Your task to perform on an android device: Open wifi settings Image 0: 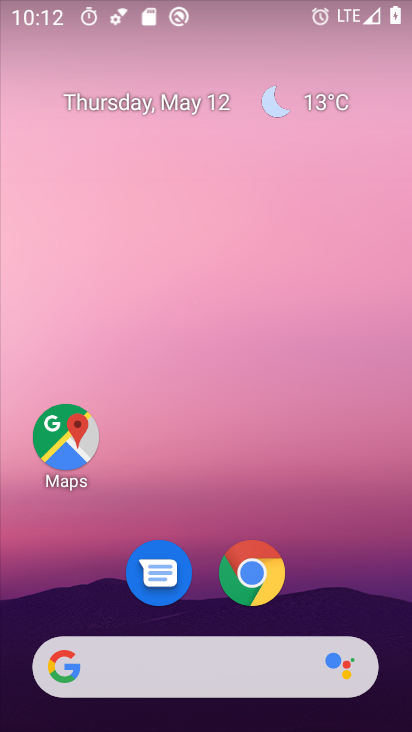
Step 0: drag from (380, 427) to (380, 265)
Your task to perform on an android device: Open wifi settings Image 1: 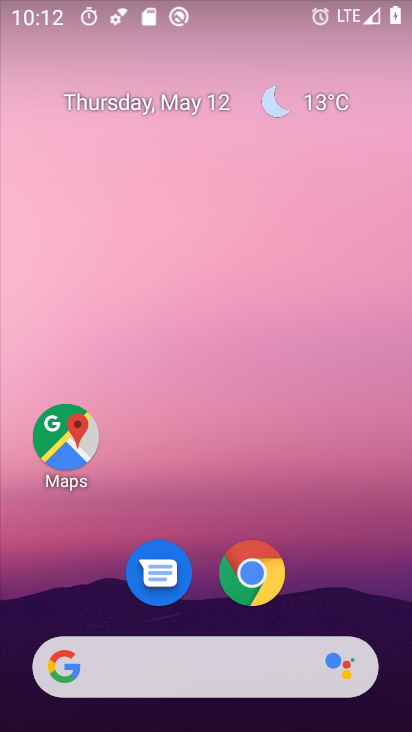
Step 1: drag from (396, 363) to (380, 166)
Your task to perform on an android device: Open wifi settings Image 2: 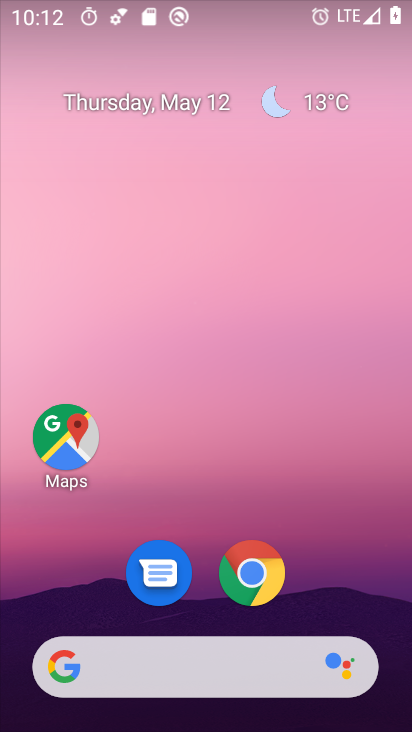
Step 2: drag from (411, 469) to (394, 273)
Your task to perform on an android device: Open wifi settings Image 3: 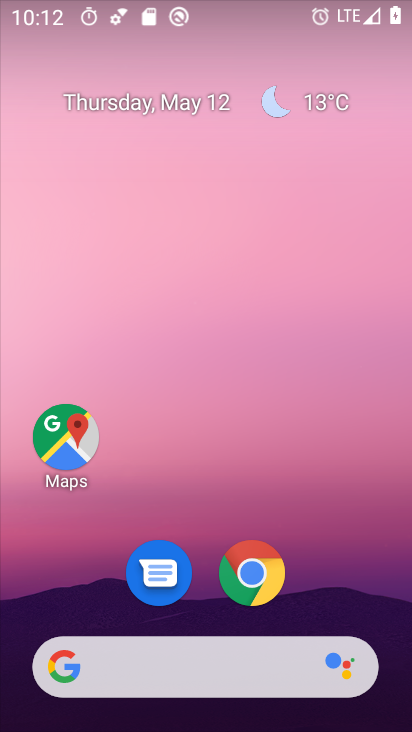
Step 3: drag from (365, 247) to (358, 143)
Your task to perform on an android device: Open wifi settings Image 4: 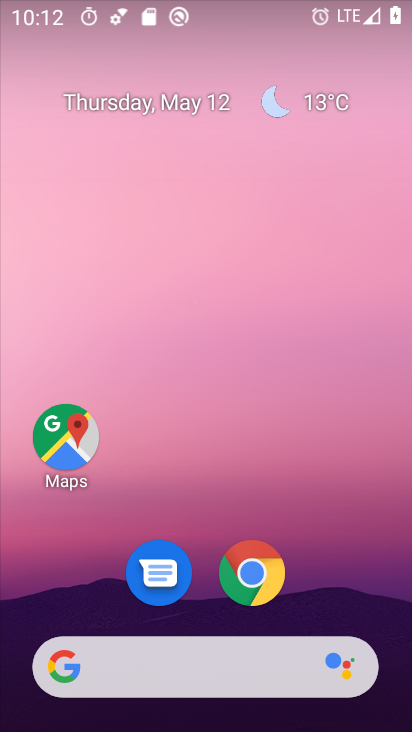
Step 4: drag from (383, 350) to (361, 213)
Your task to perform on an android device: Open wifi settings Image 5: 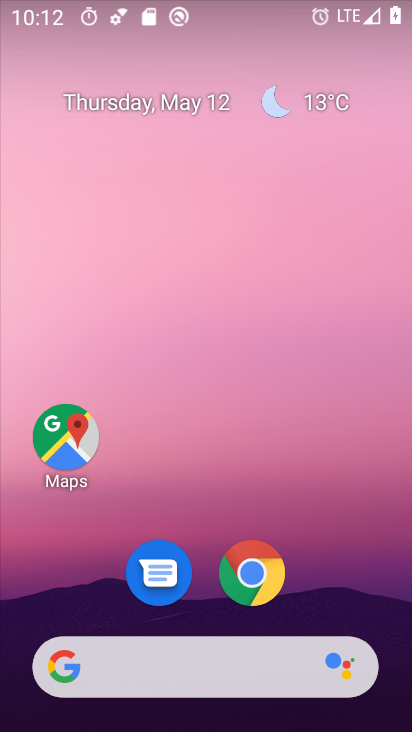
Step 5: drag from (389, 674) to (373, 174)
Your task to perform on an android device: Open wifi settings Image 6: 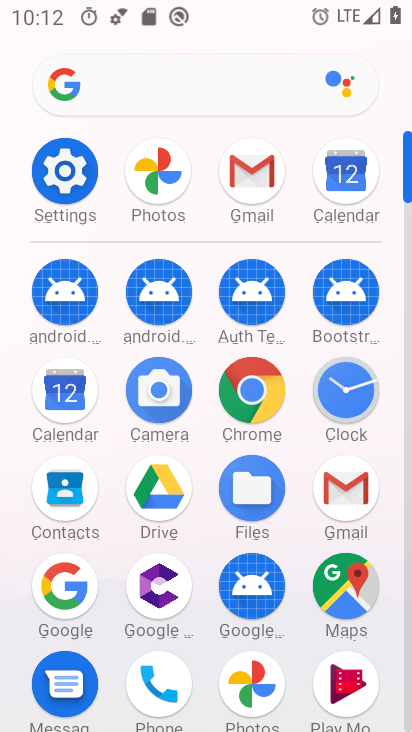
Step 6: click (66, 173)
Your task to perform on an android device: Open wifi settings Image 7: 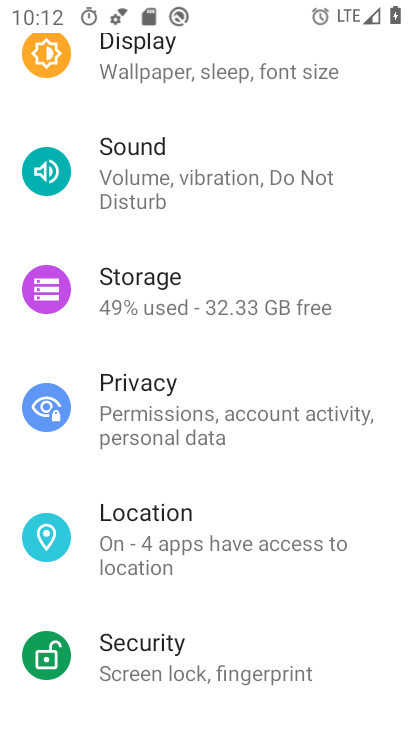
Step 7: drag from (363, 123) to (352, 462)
Your task to perform on an android device: Open wifi settings Image 8: 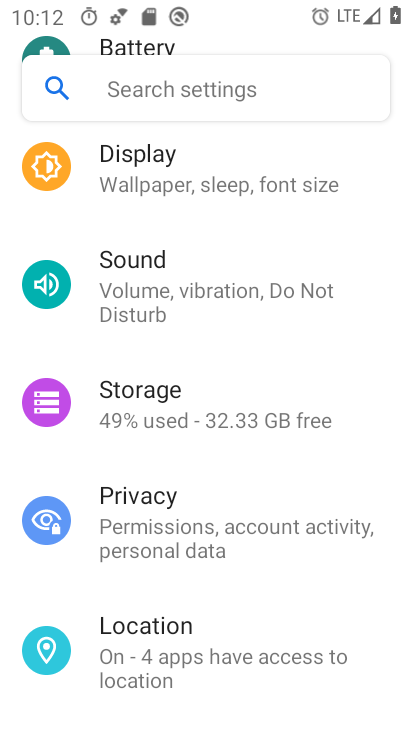
Step 8: drag from (350, 195) to (360, 515)
Your task to perform on an android device: Open wifi settings Image 9: 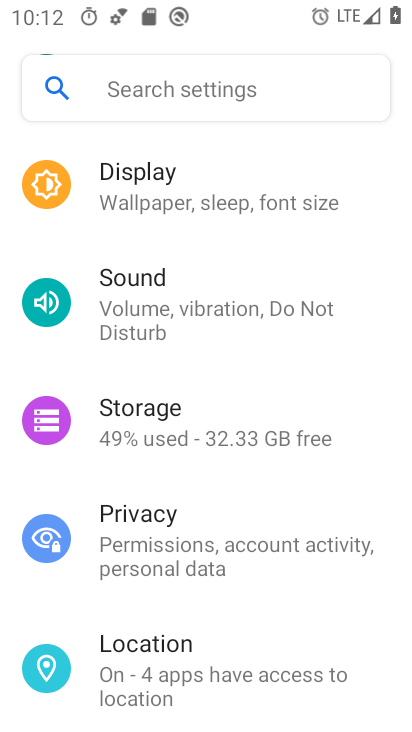
Step 9: drag from (375, 161) to (377, 512)
Your task to perform on an android device: Open wifi settings Image 10: 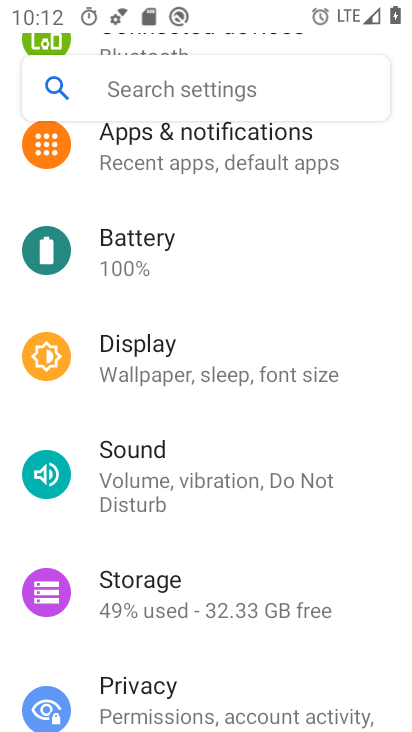
Step 10: drag from (389, 199) to (382, 464)
Your task to perform on an android device: Open wifi settings Image 11: 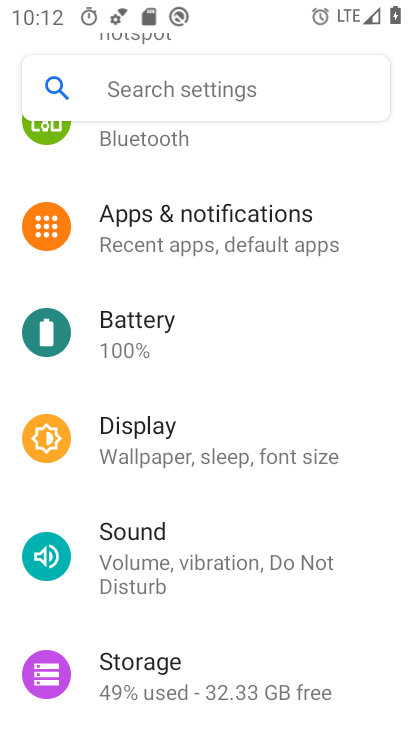
Step 11: drag from (378, 158) to (384, 427)
Your task to perform on an android device: Open wifi settings Image 12: 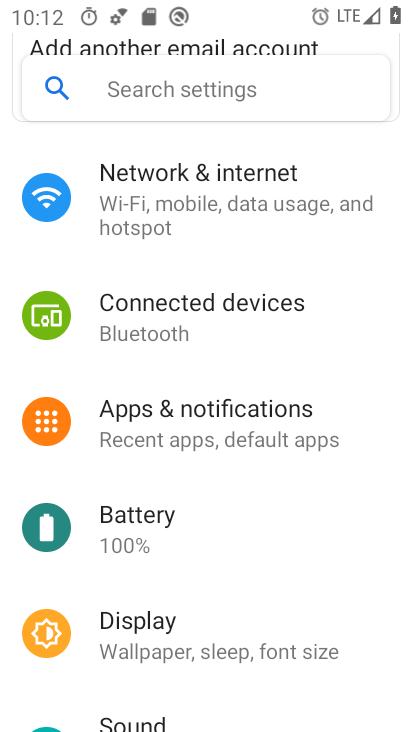
Step 12: click (232, 184)
Your task to perform on an android device: Open wifi settings Image 13: 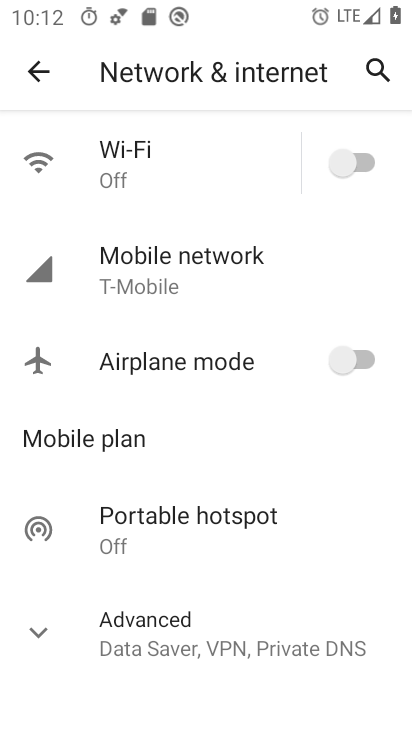
Step 13: click (173, 160)
Your task to perform on an android device: Open wifi settings Image 14: 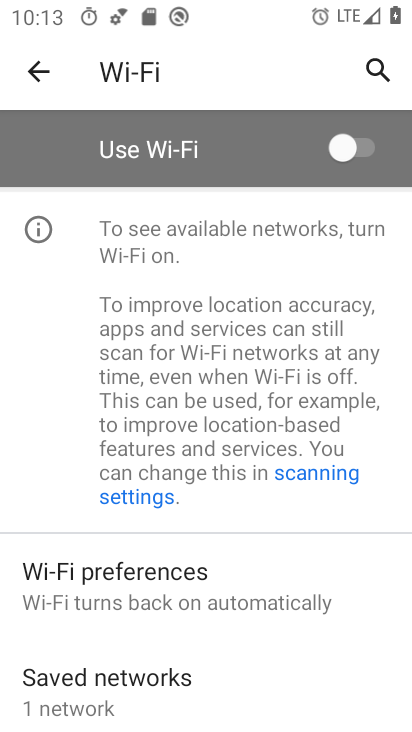
Step 14: click (368, 153)
Your task to perform on an android device: Open wifi settings Image 15: 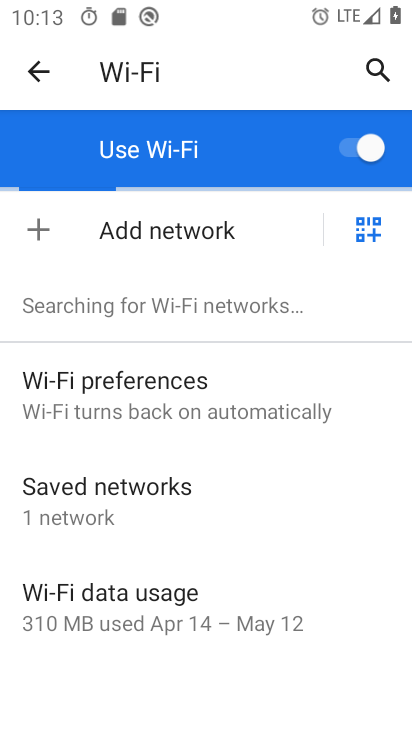
Step 15: task complete